Your task to perform on an android device: Open Youtube and go to "Your channel" Image 0: 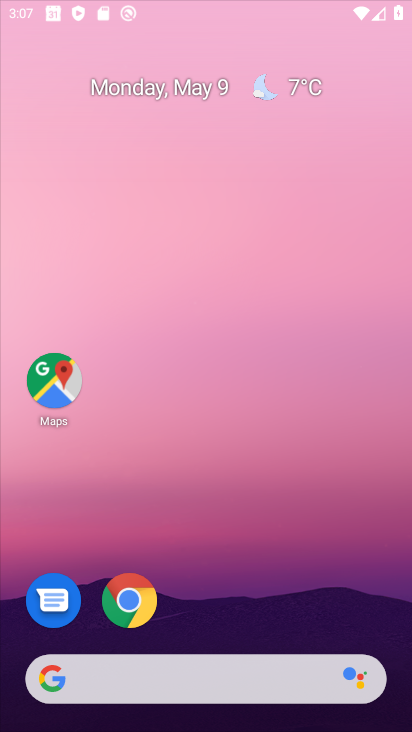
Step 0: click (309, 16)
Your task to perform on an android device: Open Youtube and go to "Your channel" Image 1: 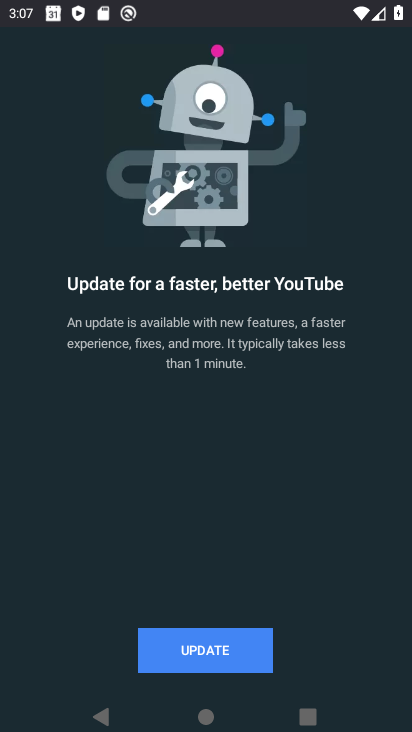
Step 1: press back button
Your task to perform on an android device: Open Youtube and go to "Your channel" Image 2: 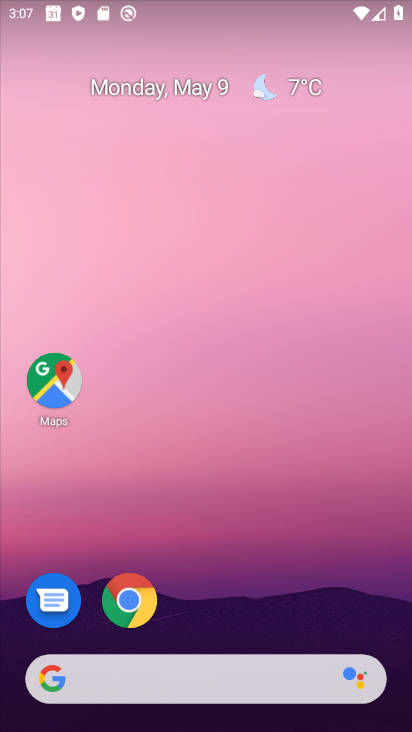
Step 2: drag from (264, 572) to (213, 7)
Your task to perform on an android device: Open Youtube and go to "Your channel" Image 3: 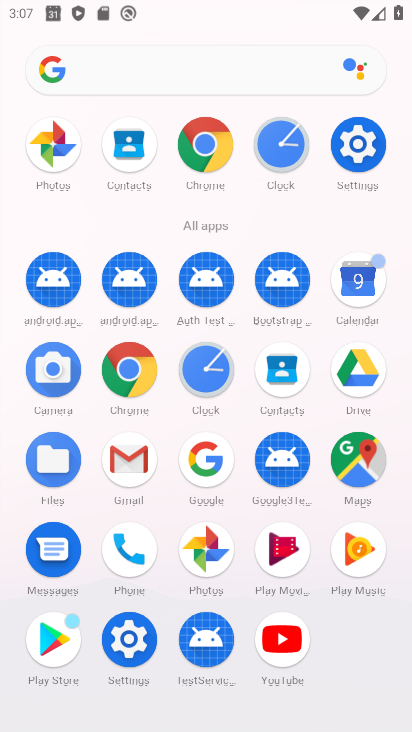
Step 3: click (279, 644)
Your task to perform on an android device: Open Youtube and go to "Your channel" Image 4: 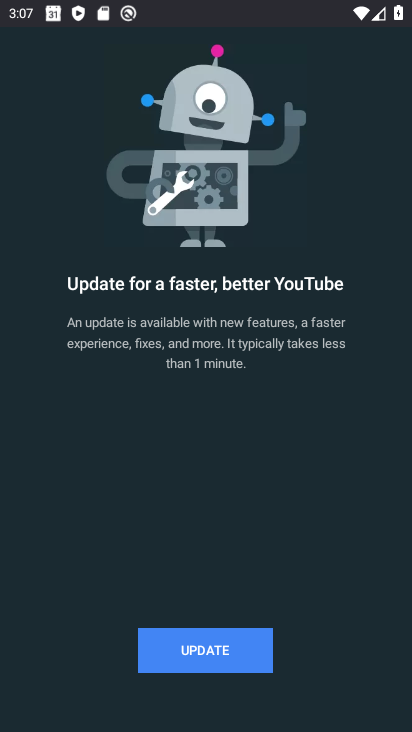
Step 4: click (258, 650)
Your task to perform on an android device: Open Youtube and go to "Your channel" Image 5: 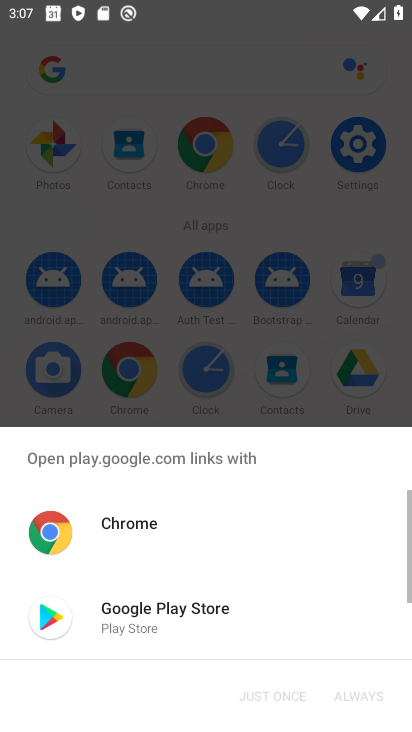
Step 5: click (169, 614)
Your task to perform on an android device: Open Youtube and go to "Your channel" Image 6: 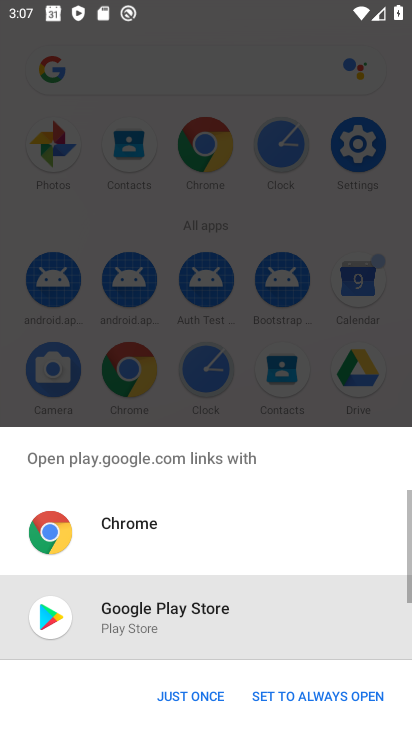
Step 6: click (159, 683)
Your task to perform on an android device: Open Youtube and go to "Your channel" Image 7: 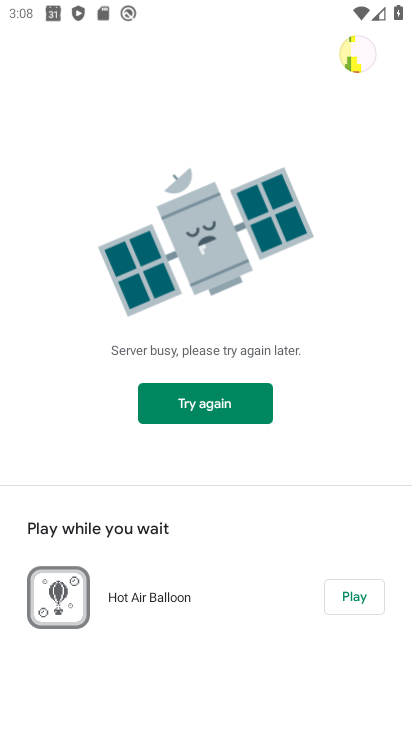
Step 7: click (204, 394)
Your task to perform on an android device: Open Youtube and go to "Your channel" Image 8: 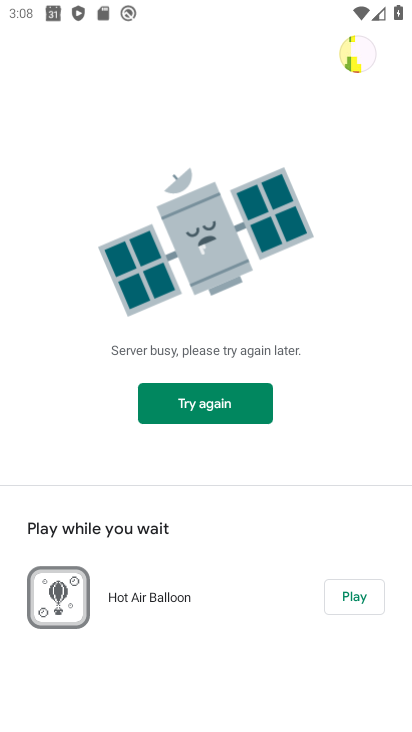
Step 8: task complete